Your task to perform on an android device: Open wifi settings Image 0: 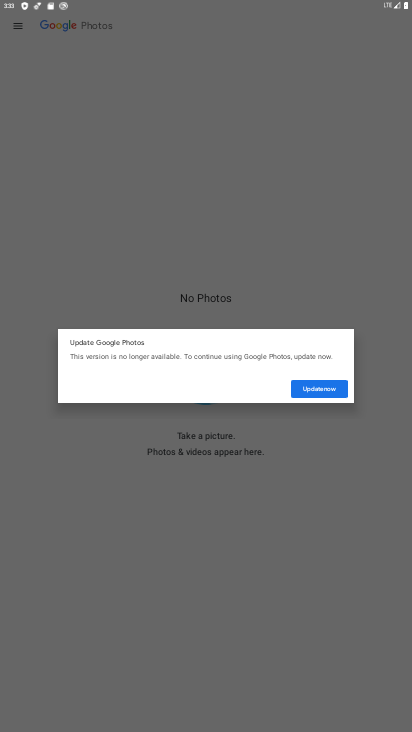
Step 0: press home button
Your task to perform on an android device: Open wifi settings Image 1: 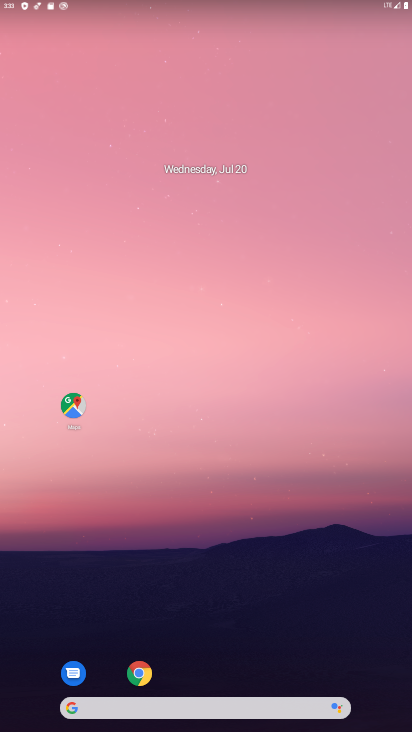
Step 1: drag from (244, 536) to (263, 193)
Your task to perform on an android device: Open wifi settings Image 2: 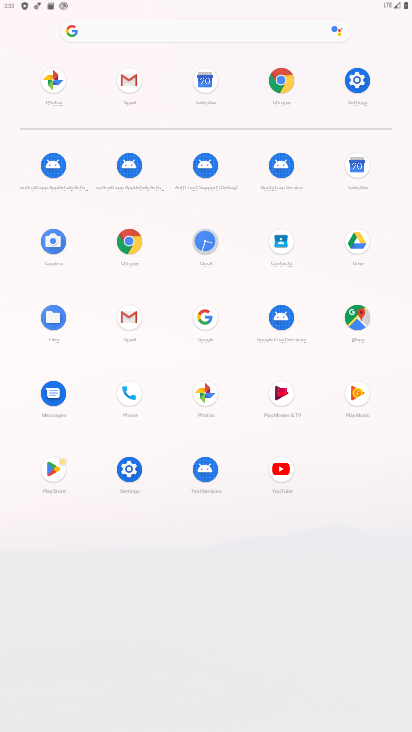
Step 2: click (136, 469)
Your task to perform on an android device: Open wifi settings Image 3: 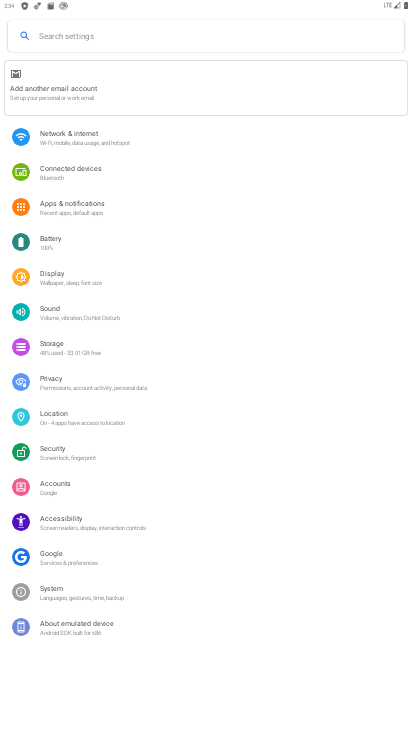
Step 3: click (56, 129)
Your task to perform on an android device: Open wifi settings Image 4: 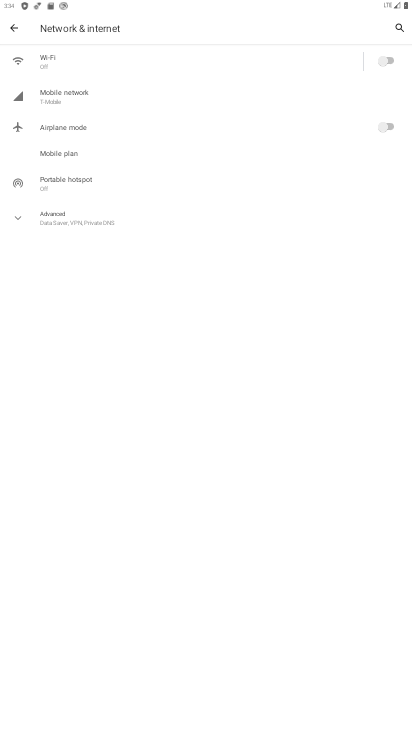
Step 4: task complete